Your task to perform on an android device: open chrome and create a bookmark for the current page Image 0: 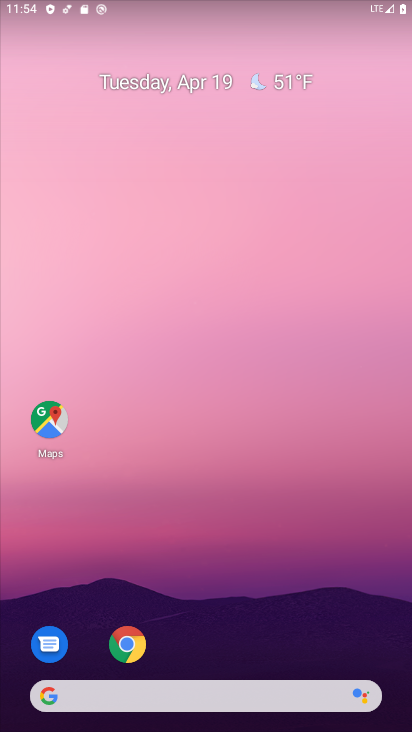
Step 0: click (125, 643)
Your task to perform on an android device: open chrome and create a bookmark for the current page Image 1: 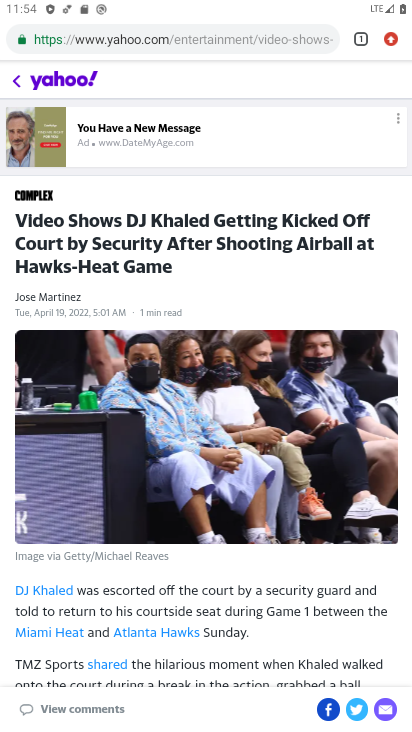
Step 1: click (390, 41)
Your task to perform on an android device: open chrome and create a bookmark for the current page Image 2: 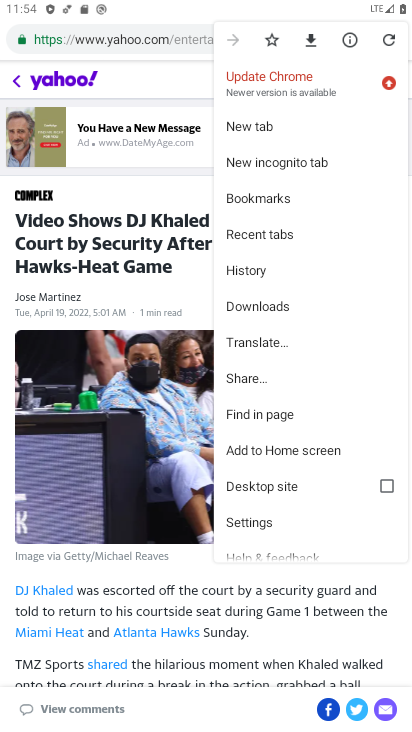
Step 2: click (270, 35)
Your task to perform on an android device: open chrome and create a bookmark for the current page Image 3: 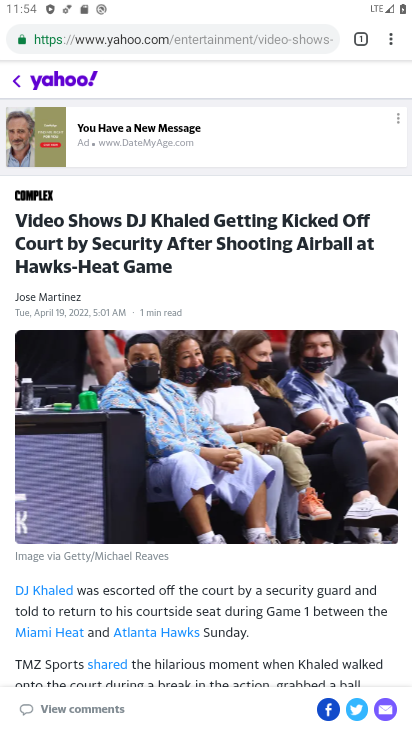
Step 3: task complete